Your task to perform on an android device: Open Reddit.com Image 0: 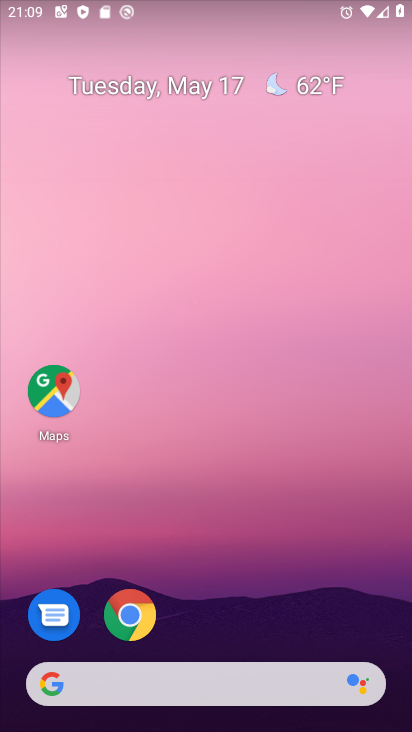
Step 0: click (146, 613)
Your task to perform on an android device: Open Reddit.com Image 1: 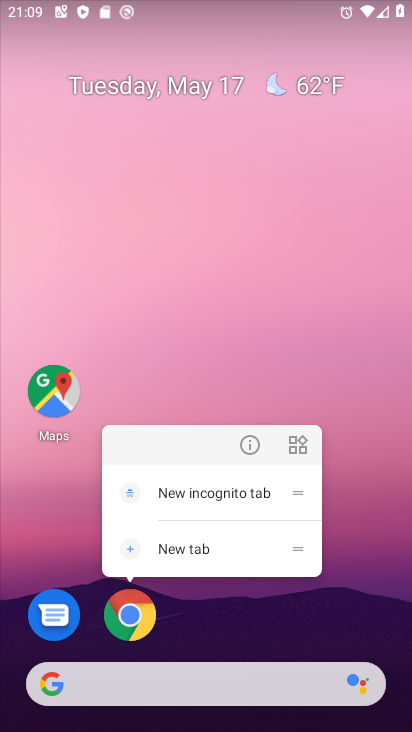
Step 1: click (126, 611)
Your task to perform on an android device: Open Reddit.com Image 2: 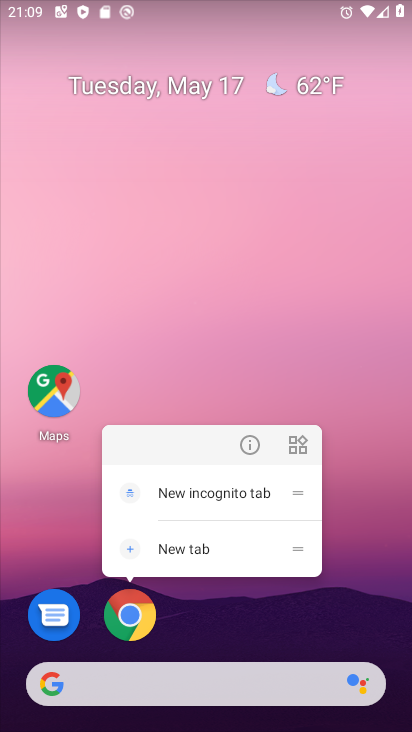
Step 2: click (126, 611)
Your task to perform on an android device: Open Reddit.com Image 3: 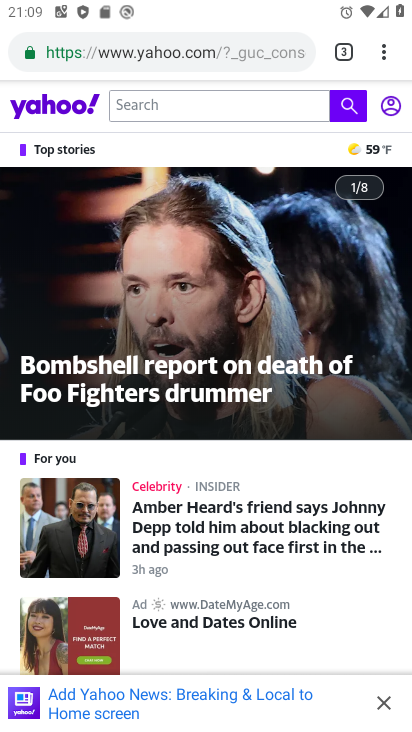
Step 3: click (237, 50)
Your task to perform on an android device: Open Reddit.com Image 4: 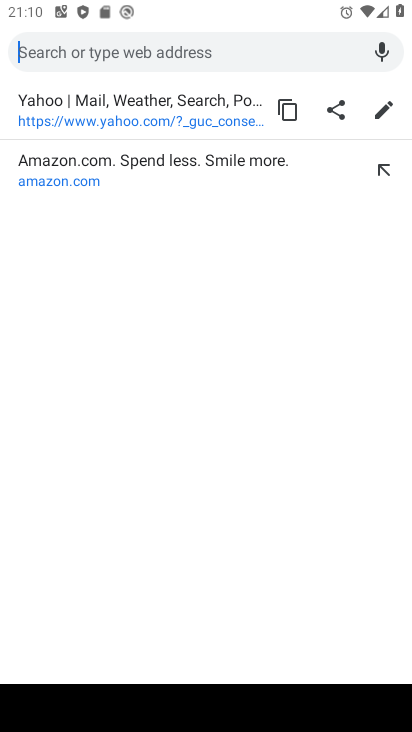
Step 4: type "Reddit.com"
Your task to perform on an android device: Open Reddit.com Image 5: 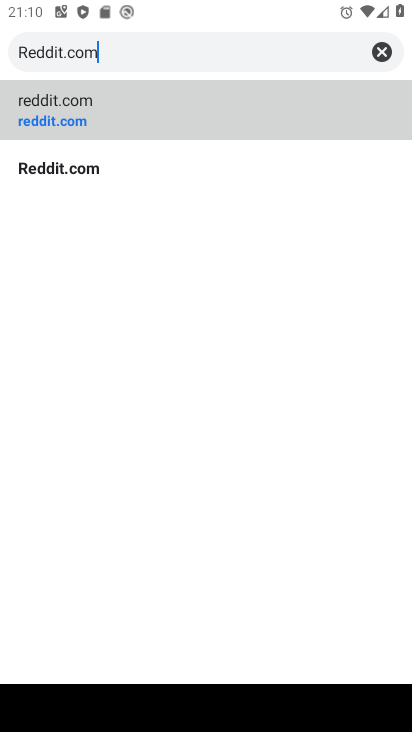
Step 5: click (63, 119)
Your task to perform on an android device: Open Reddit.com Image 6: 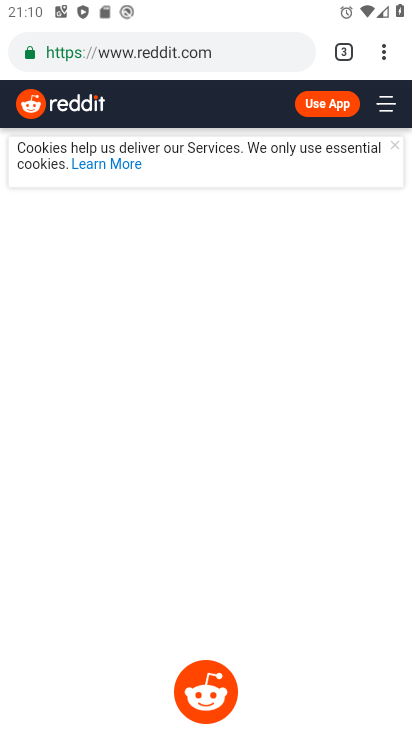
Step 6: task complete